Your task to perform on an android device: What is the recent news? Image 0: 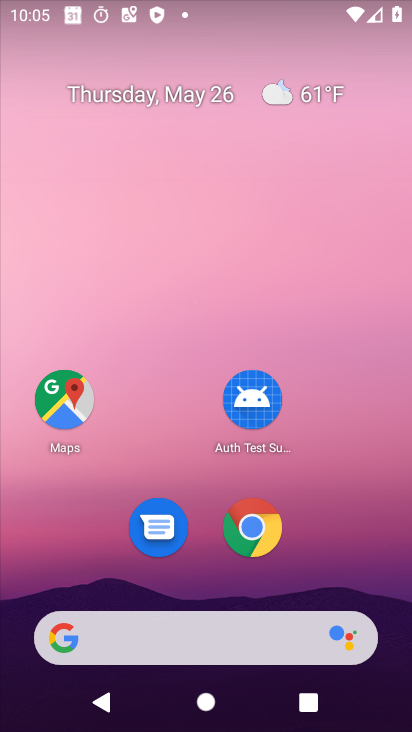
Step 0: drag from (358, 560) to (371, 83)
Your task to perform on an android device: What is the recent news? Image 1: 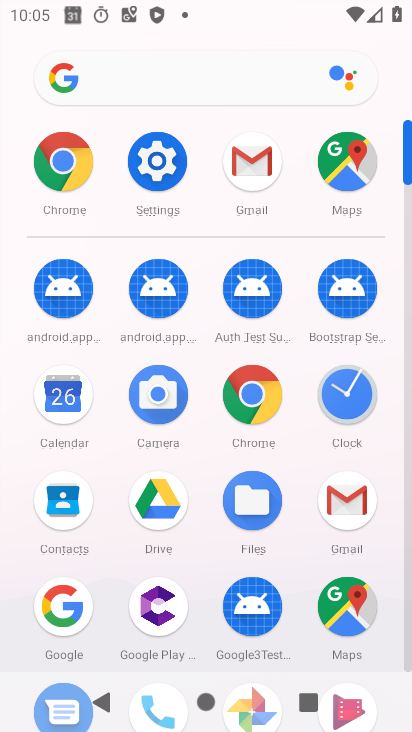
Step 1: click (61, 164)
Your task to perform on an android device: What is the recent news? Image 2: 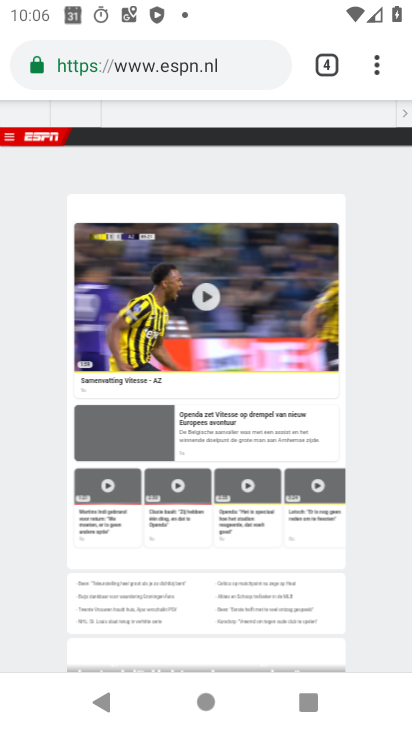
Step 2: task complete